Your task to perform on an android device: check storage Image 0: 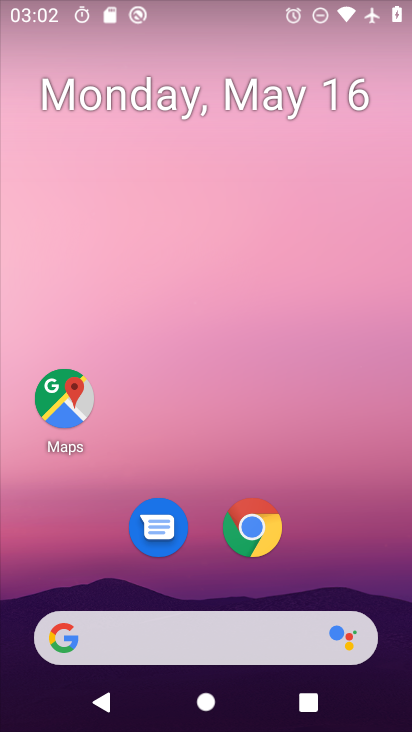
Step 0: press home button
Your task to perform on an android device: check storage Image 1: 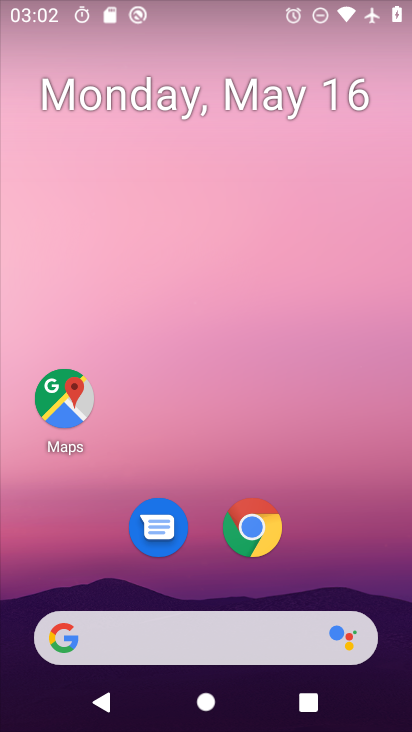
Step 1: drag from (177, 638) to (376, 41)
Your task to perform on an android device: check storage Image 2: 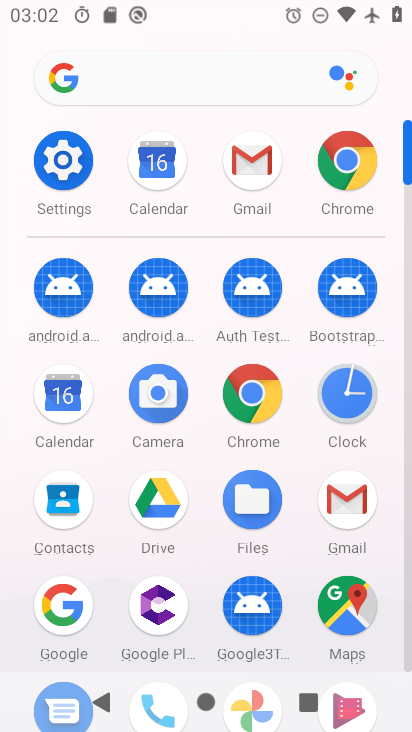
Step 2: click (67, 147)
Your task to perform on an android device: check storage Image 3: 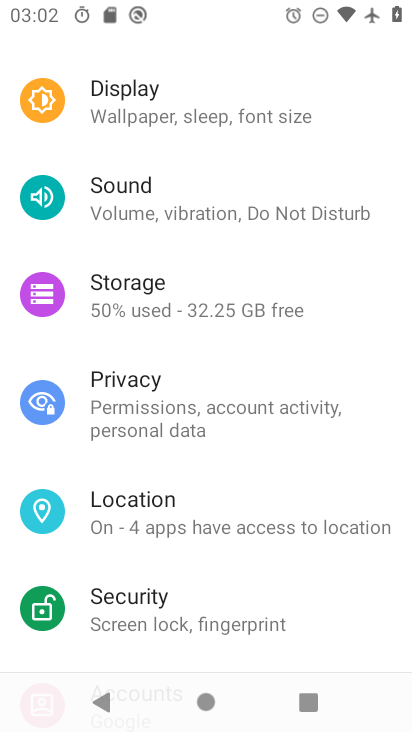
Step 3: click (168, 299)
Your task to perform on an android device: check storage Image 4: 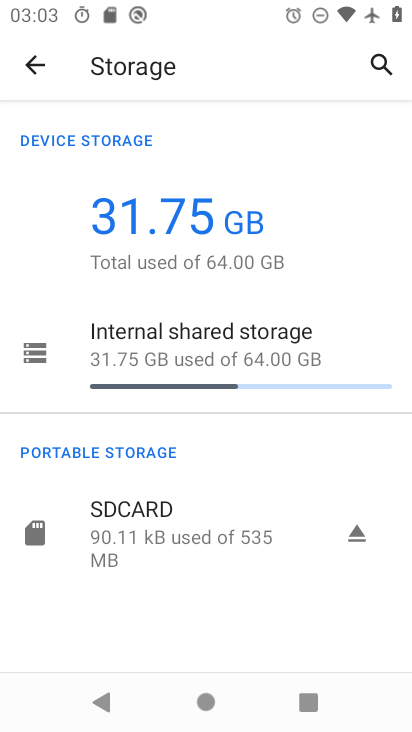
Step 4: task complete